Your task to perform on an android device: change notification settings in the gmail app Image 0: 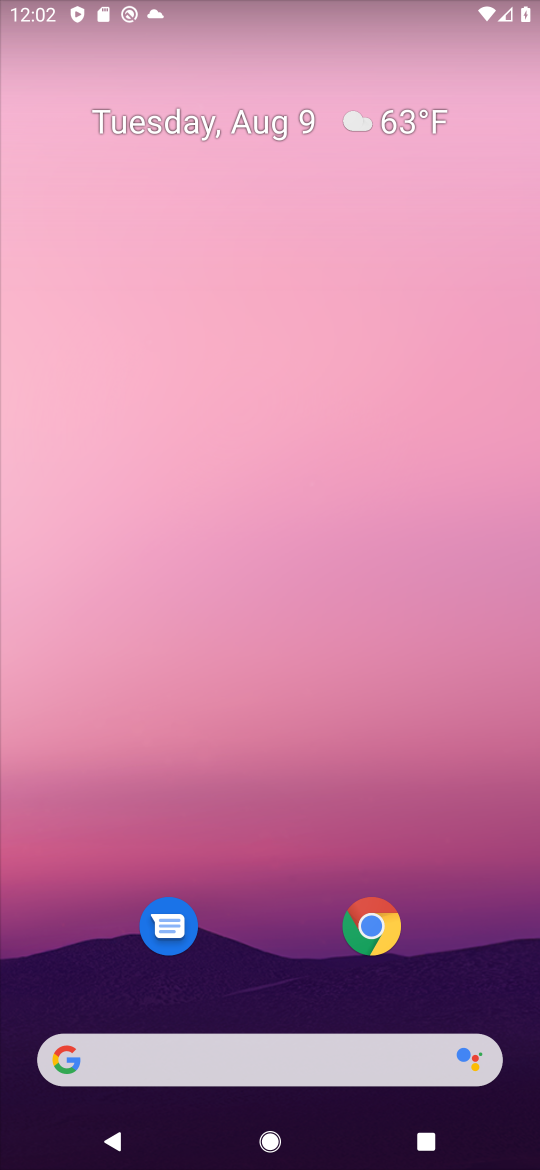
Step 0: drag from (137, 777) to (361, 286)
Your task to perform on an android device: change notification settings in the gmail app Image 1: 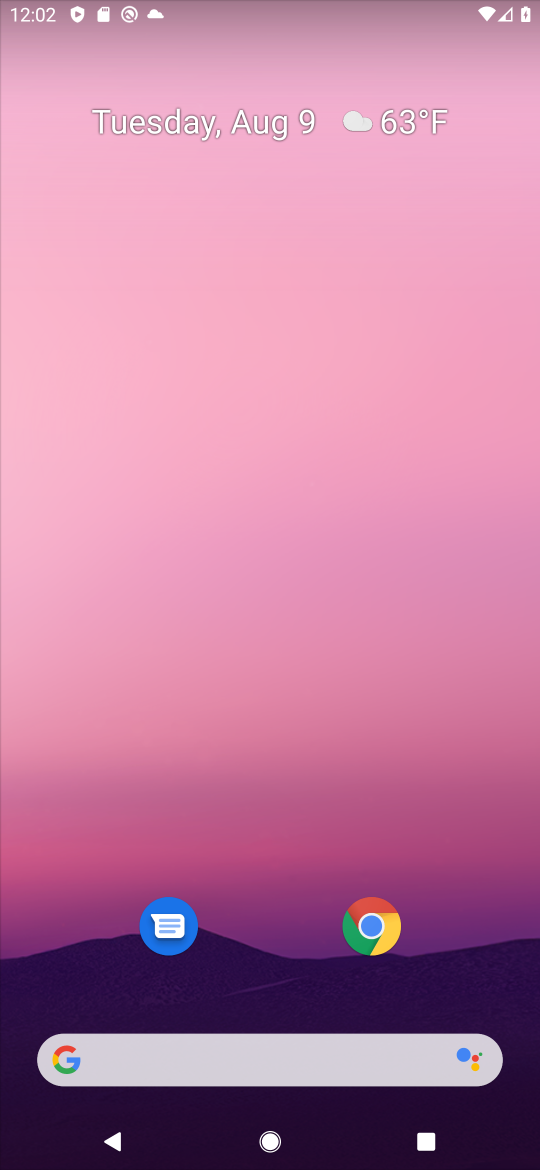
Step 1: drag from (67, 856) to (348, 63)
Your task to perform on an android device: change notification settings in the gmail app Image 2: 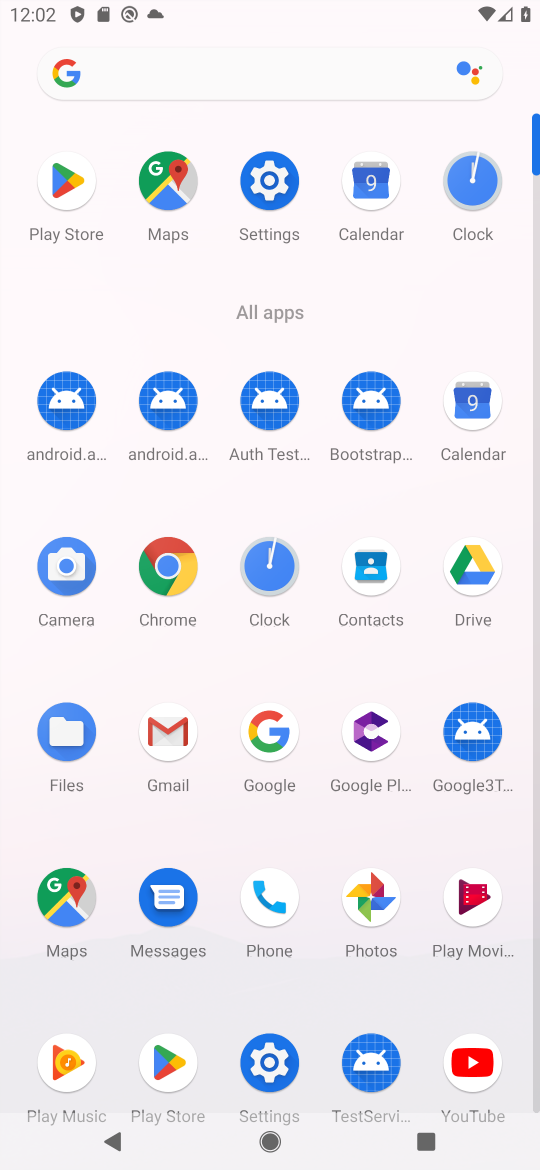
Step 2: click (147, 738)
Your task to perform on an android device: change notification settings in the gmail app Image 3: 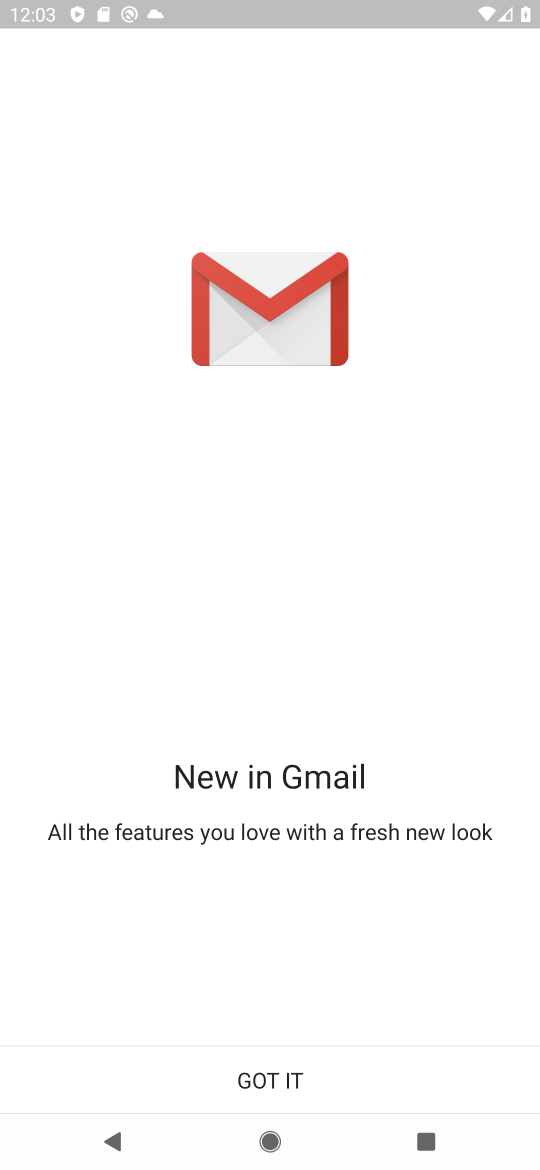
Step 3: click (340, 1068)
Your task to perform on an android device: change notification settings in the gmail app Image 4: 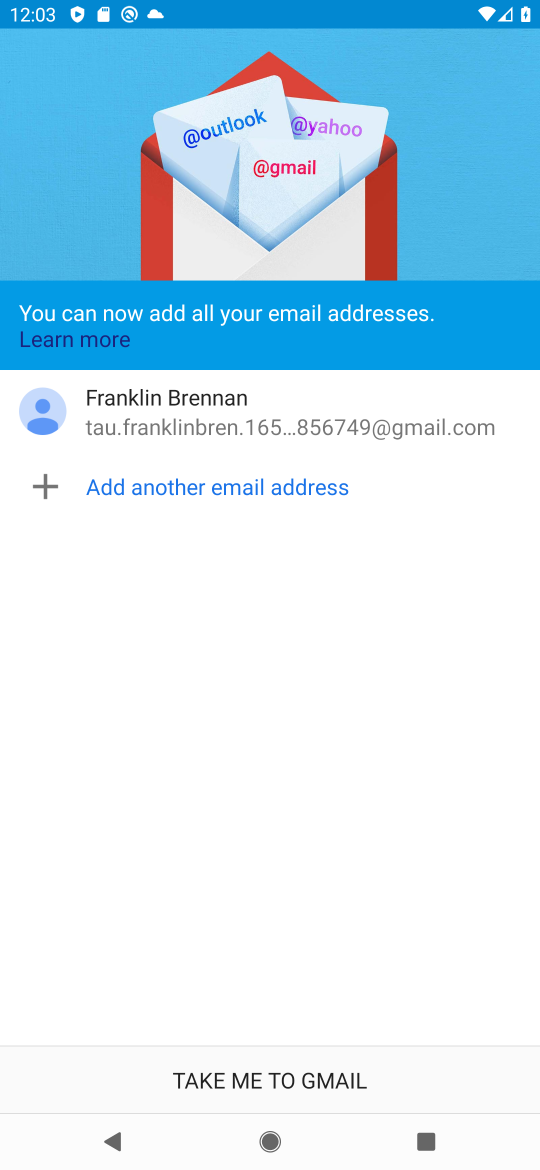
Step 4: click (257, 1065)
Your task to perform on an android device: change notification settings in the gmail app Image 5: 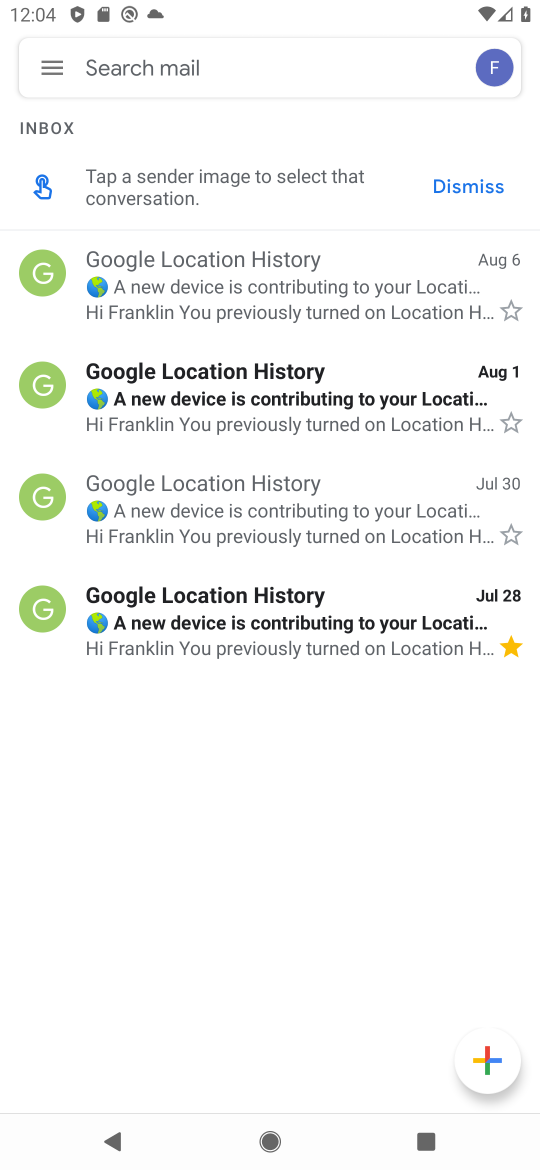
Step 5: click (49, 70)
Your task to perform on an android device: change notification settings in the gmail app Image 6: 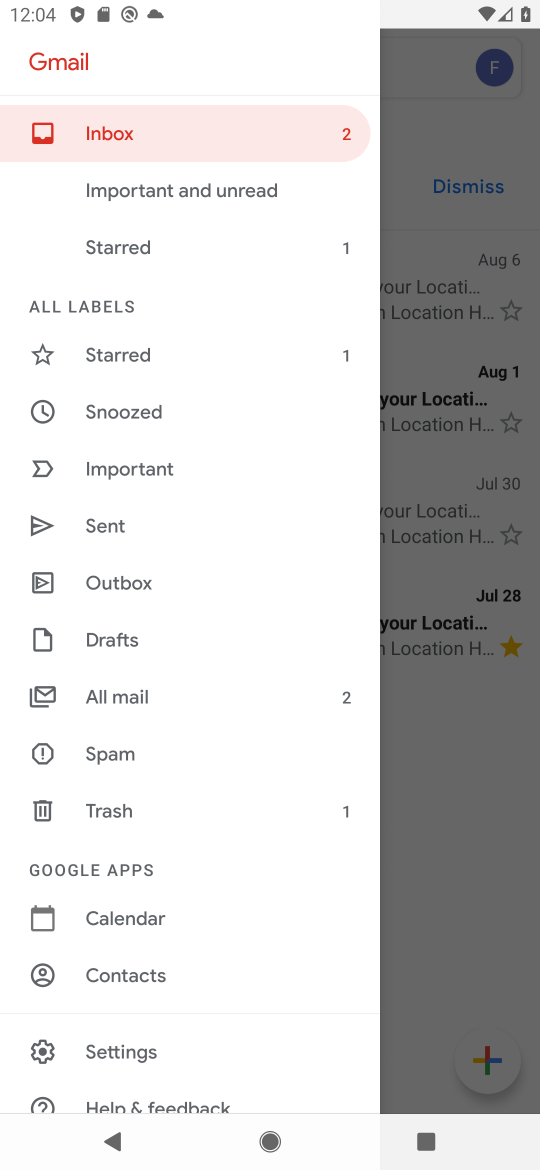
Step 6: click (125, 1054)
Your task to perform on an android device: change notification settings in the gmail app Image 7: 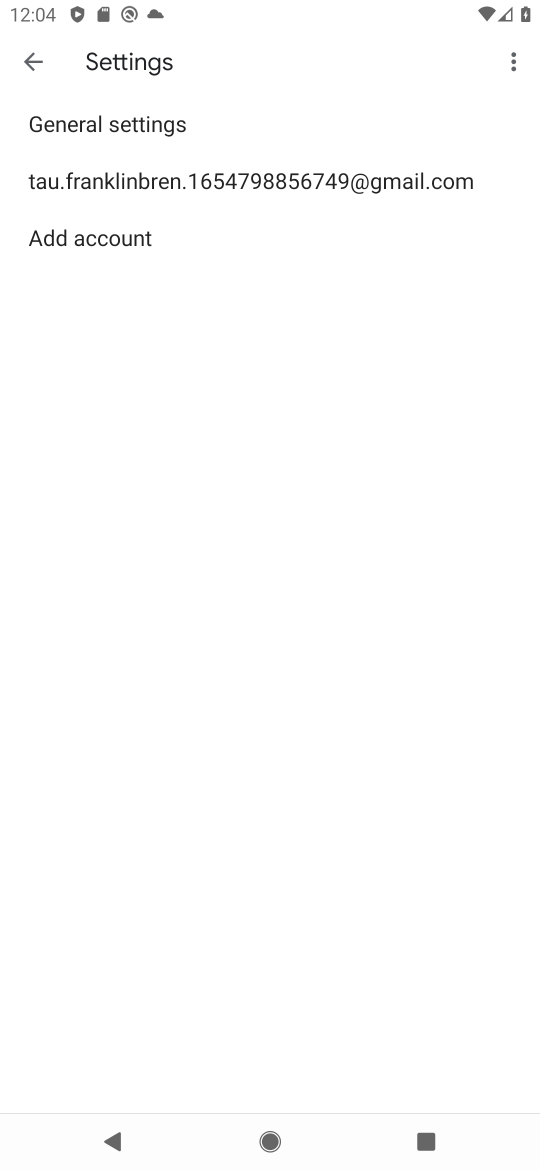
Step 7: click (332, 189)
Your task to perform on an android device: change notification settings in the gmail app Image 8: 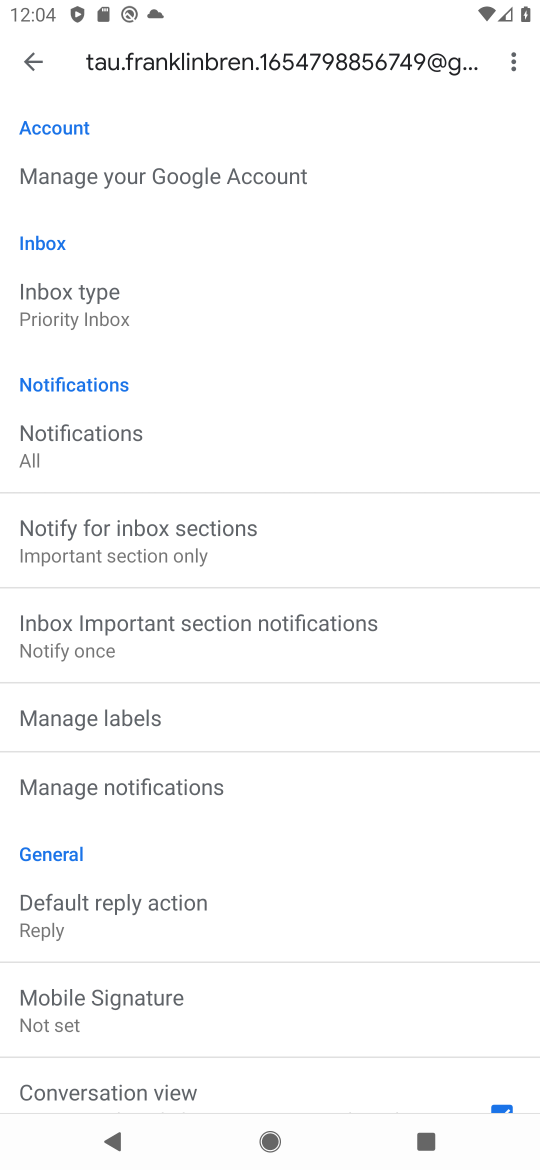
Step 8: click (155, 787)
Your task to perform on an android device: change notification settings in the gmail app Image 9: 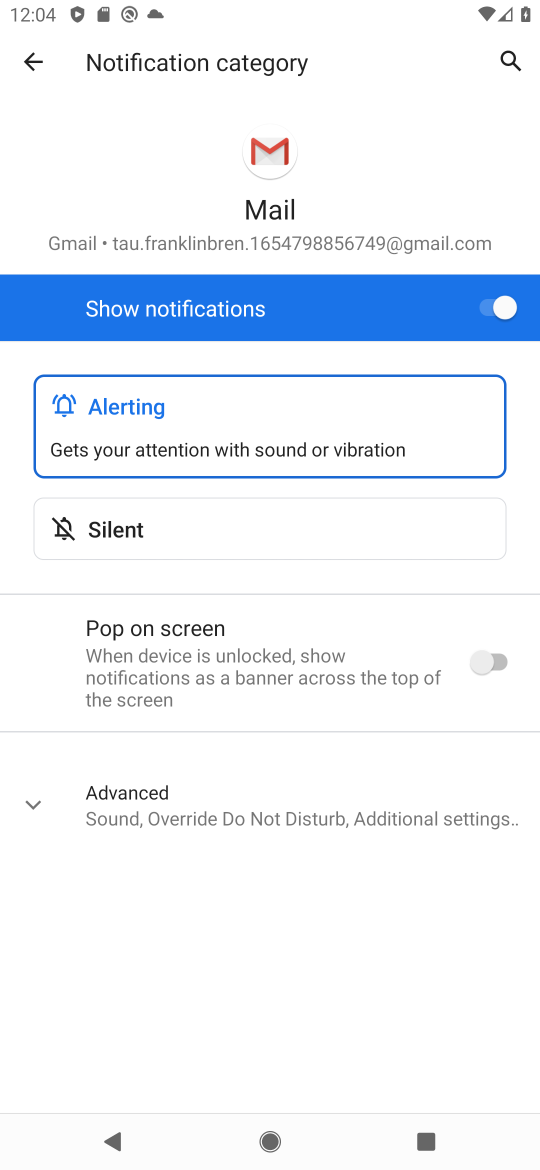
Step 9: click (506, 315)
Your task to perform on an android device: change notification settings in the gmail app Image 10: 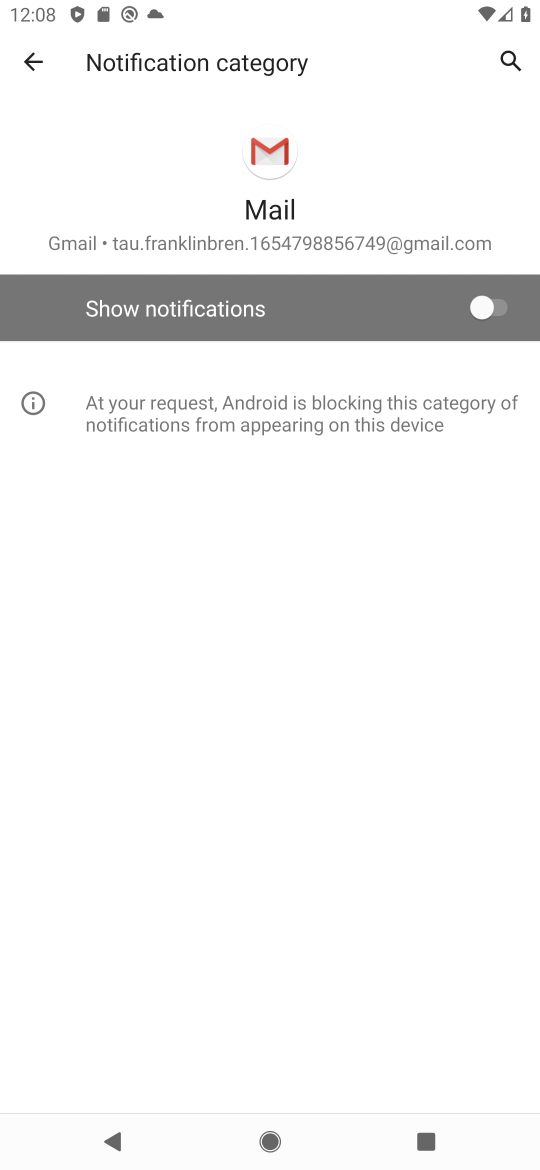
Step 10: task complete